Your task to perform on an android device: turn pop-ups off in chrome Image 0: 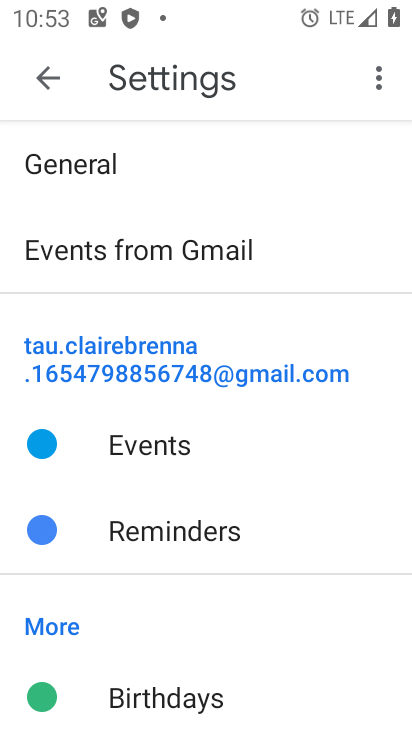
Step 0: press home button
Your task to perform on an android device: turn pop-ups off in chrome Image 1: 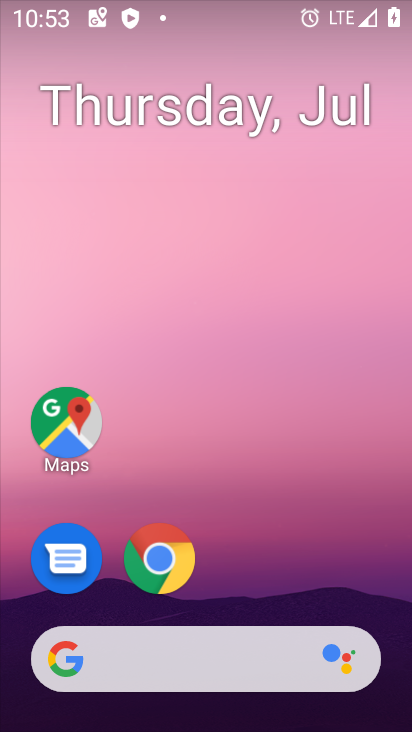
Step 1: drag from (364, 576) to (370, 72)
Your task to perform on an android device: turn pop-ups off in chrome Image 2: 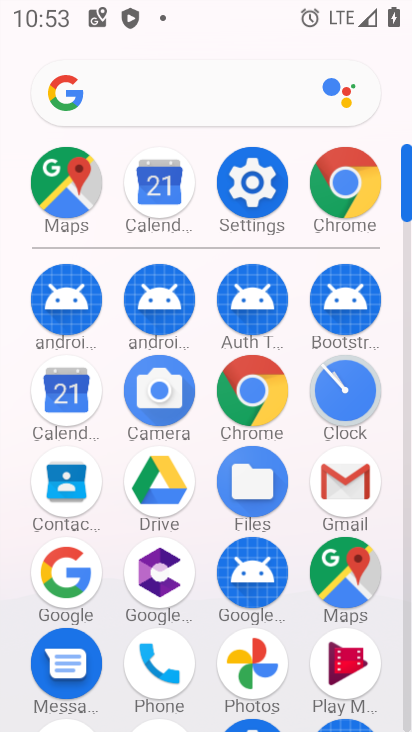
Step 2: click (263, 393)
Your task to perform on an android device: turn pop-ups off in chrome Image 3: 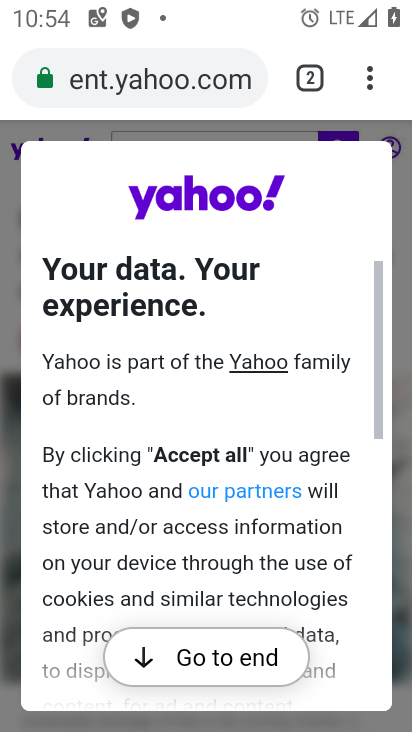
Step 3: click (373, 83)
Your task to perform on an android device: turn pop-ups off in chrome Image 4: 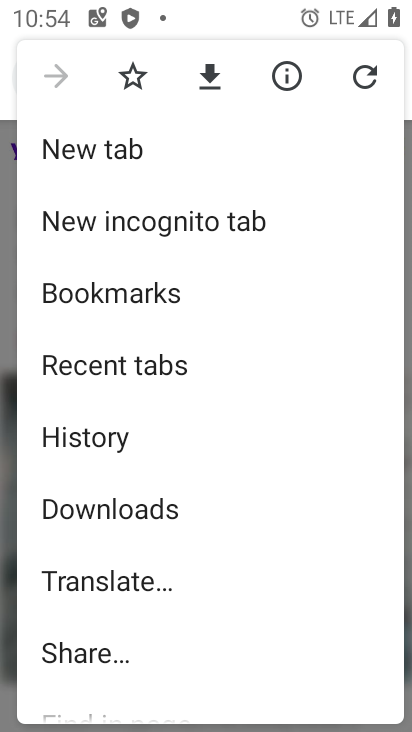
Step 4: drag from (310, 488) to (315, 384)
Your task to perform on an android device: turn pop-ups off in chrome Image 5: 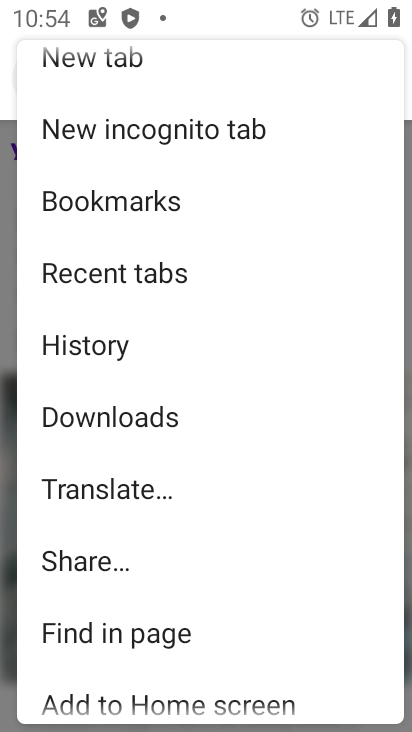
Step 5: drag from (320, 496) to (339, 225)
Your task to perform on an android device: turn pop-ups off in chrome Image 6: 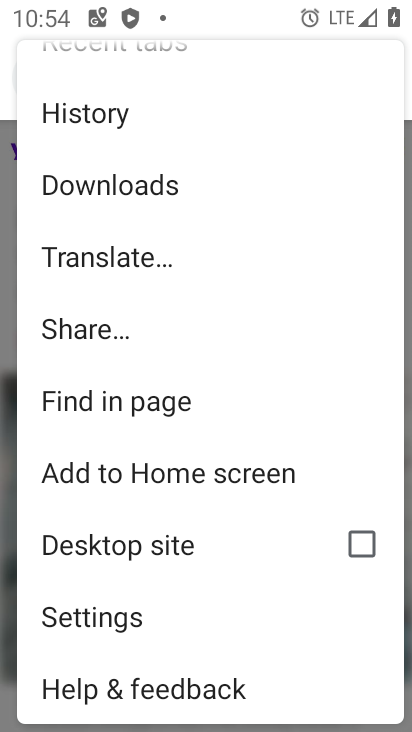
Step 6: click (144, 621)
Your task to perform on an android device: turn pop-ups off in chrome Image 7: 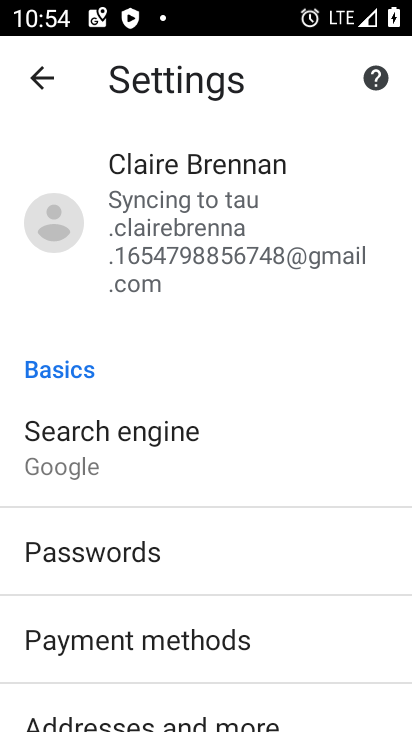
Step 7: drag from (281, 595) to (290, 507)
Your task to perform on an android device: turn pop-ups off in chrome Image 8: 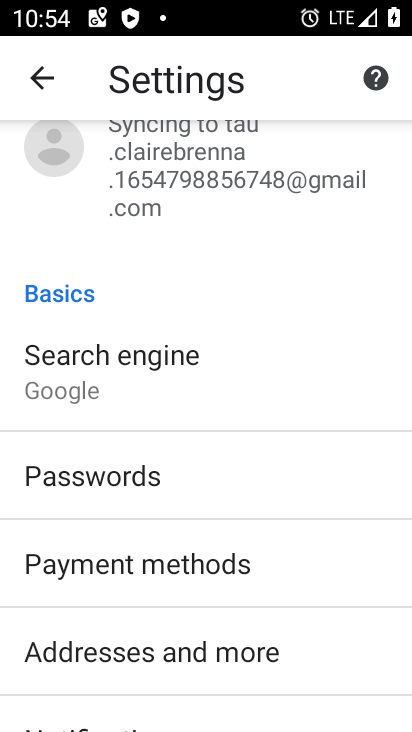
Step 8: drag from (348, 620) to (337, 512)
Your task to perform on an android device: turn pop-ups off in chrome Image 9: 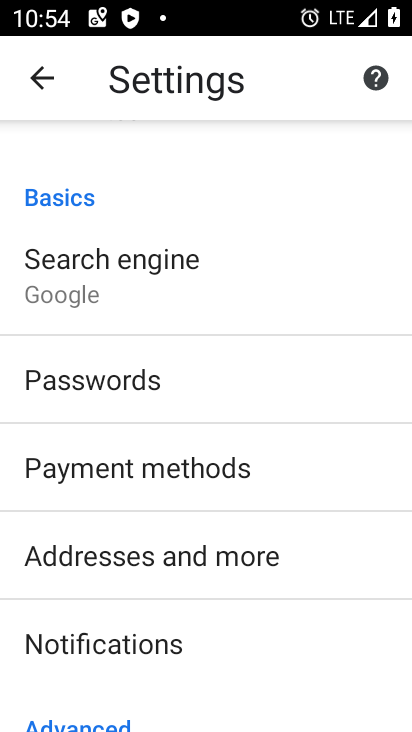
Step 9: drag from (330, 598) to (320, 504)
Your task to perform on an android device: turn pop-ups off in chrome Image 10: 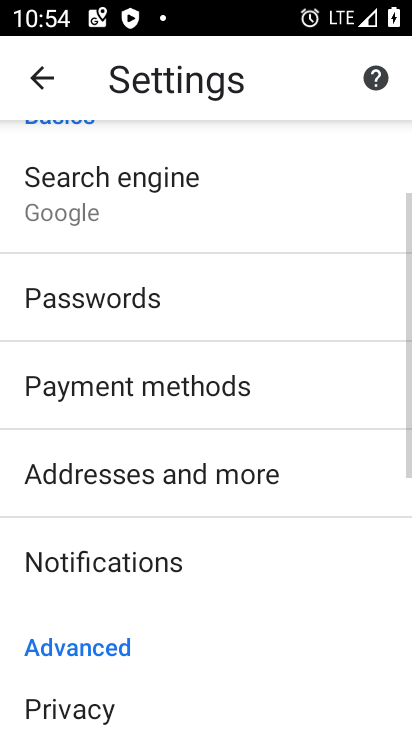
Step 10: drag from (307, 598) to (319, 484)
Your task to perform on an android device: turn pop-ups off in chrome Image 11: 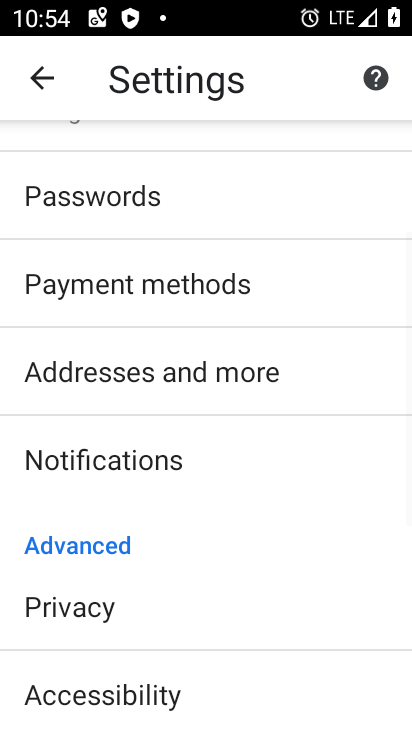
Step 11: drag from (302, 594) to (309, 510)
Your task to perform on an android device: turn pop-ups off in chrome Image 12: 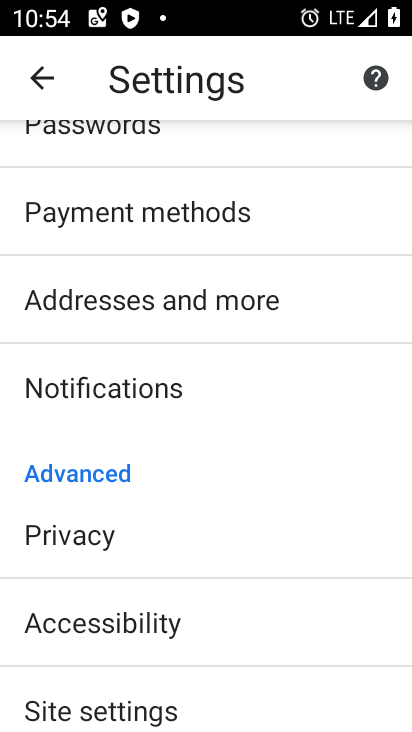
Step 12: drag from (309, 618) to (317, 529)
Your task to perform on an android device: turn pop-ups off in chrome Image 13: 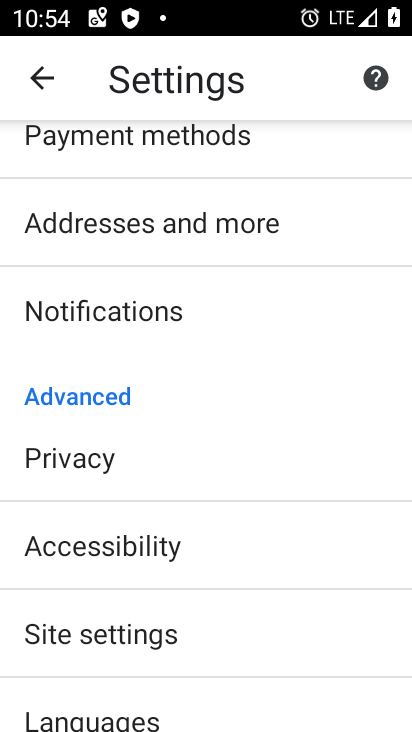
Step 13: drag from (313, 598) to (314, 497)
Your task to perform on an android device: turn pop-ups off in chrome Image 14: 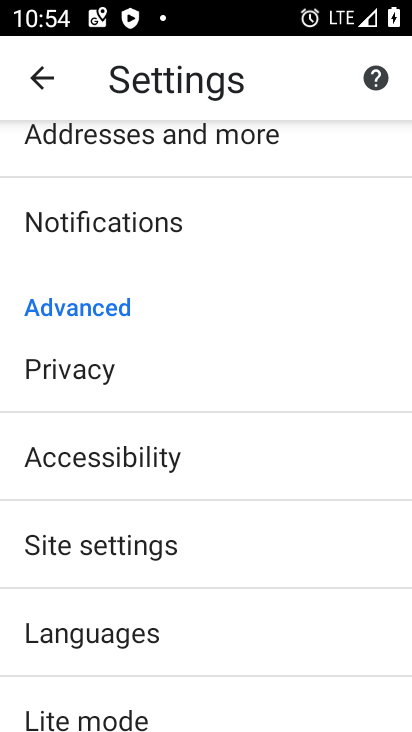
Step 14: click (314, 540)
Your task to perform on an android device: turn pop-ups off in chrome Image 15: 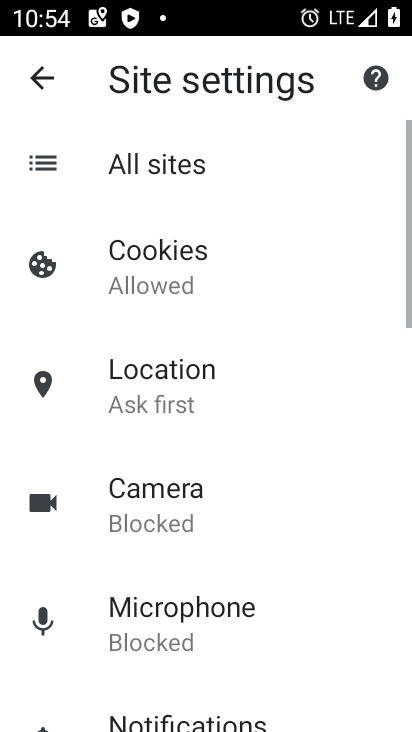
Step 15: drag from (315, 551) to (314, 459)
Your task to perform on an android device: turn pop-ups off in chrome Image 16: 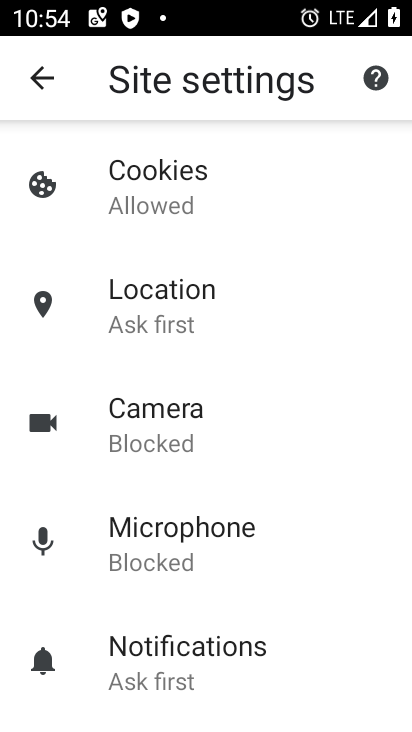
Step 16: drag from (311, 581) to (323, 468)
Your task to perform on an android device: turn pop-ups off in chrome Image 17: 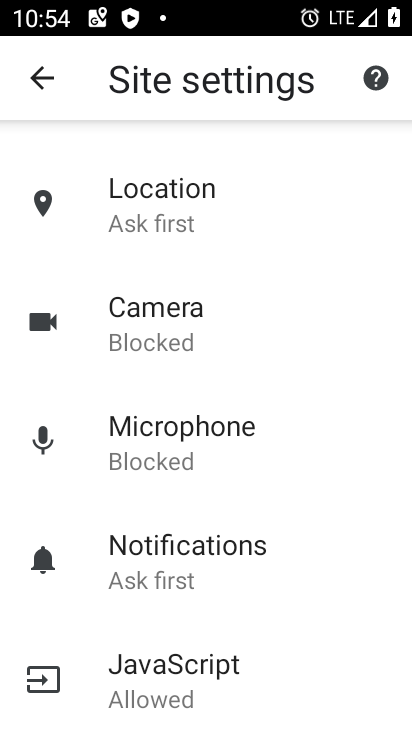
Step 17: drag from (319, 601) to (327, 474)
Your task to perform on an android device: turn pop-ups off in chrome Image 18: 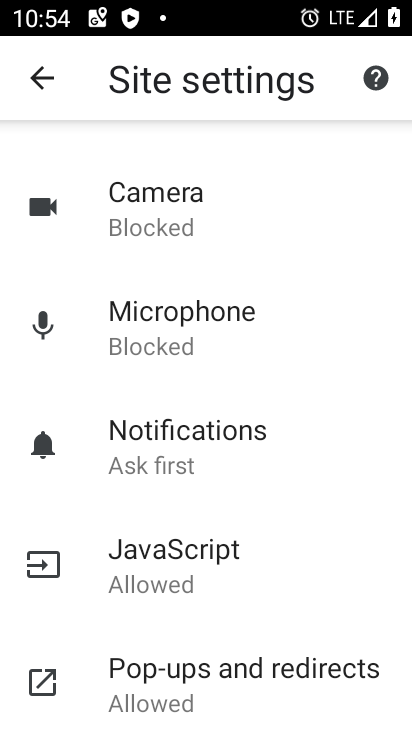
Step 18: drag from (325, 584) to (321, 472)
Your task to perform on an android device: turn pop-ups off in chrome Image 19: 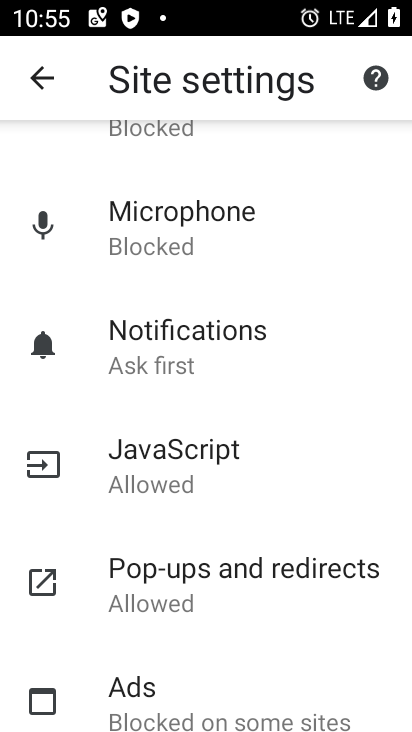
Step 19: drag from (326, 610) to (329, 455)
Your task to perform on an android device: turn pop-ups off in chrome Image 20: 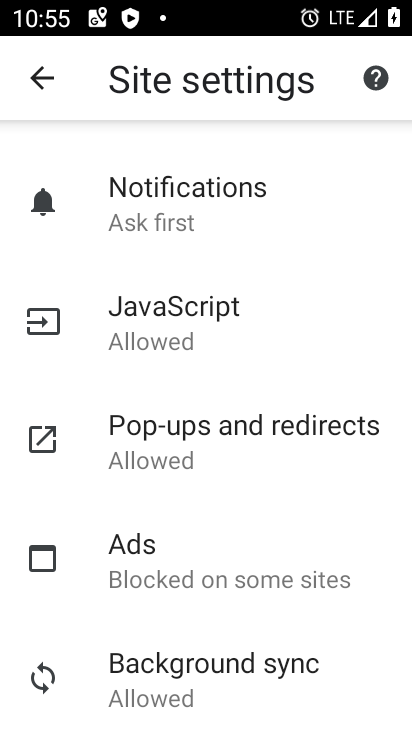
Step 20: click (329, 451)
Your task to perform on an android device: turn pop-ups off in chrome Image 21: 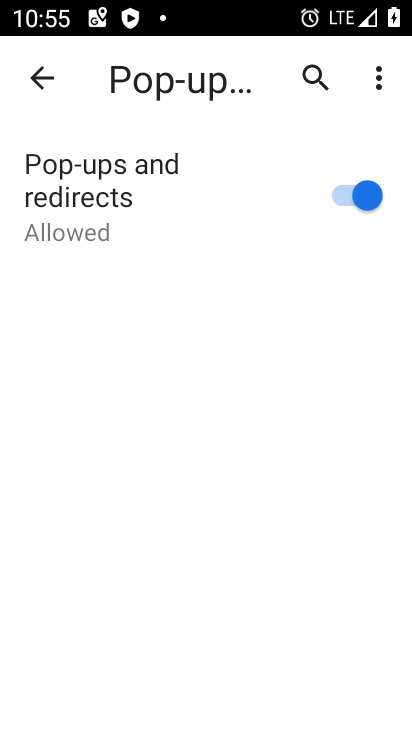
Step 21: click (366, 197)
Your task to perform on an android device: turn pop-ups off in chrome Image 22: 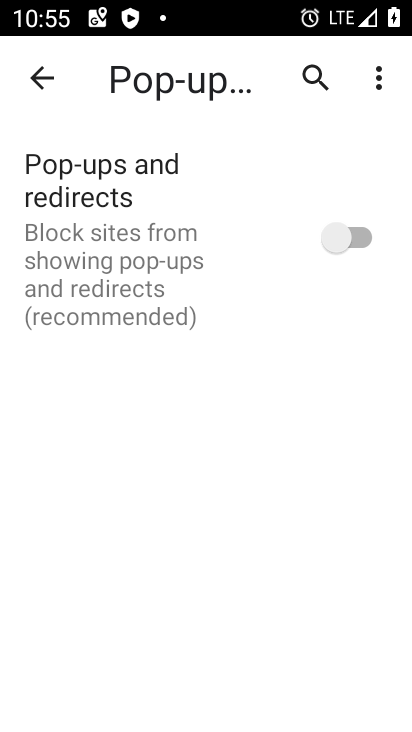
Step 22: task complete